Your task to perform on an android device: remove spam from my inbox in the gmail app Image 0: 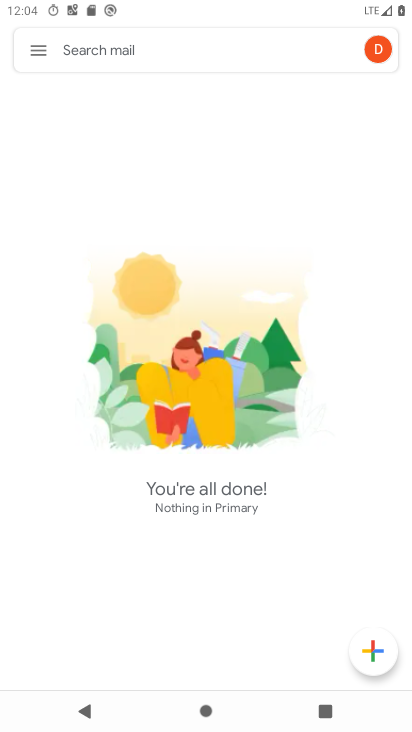
Step 0: press home button
Your task to perform on an android device: remove spam from my inbox in the gmail app Image 1: 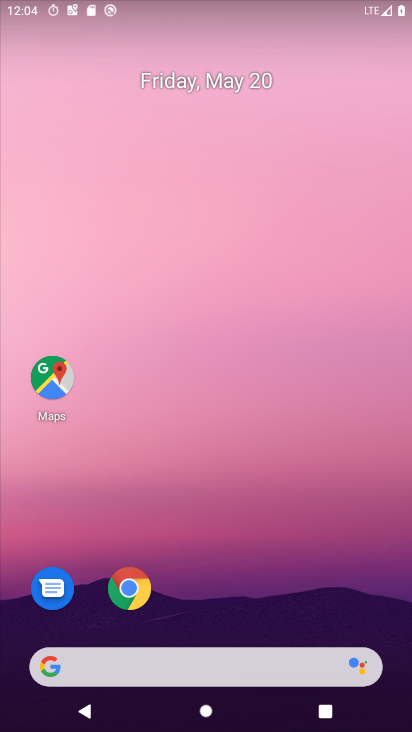
Step 1: drag from (177, 667) to (315, 96)
Your task to perform on an android device: remove spam from my inbox in the gmail app Image 2: 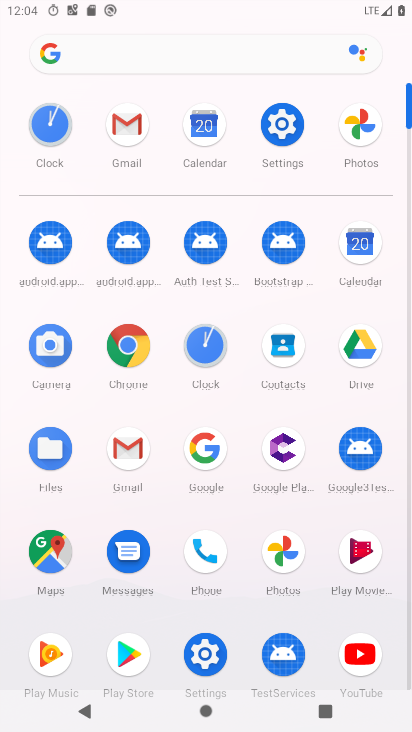
Step 2: click (125, 131)
Your task to perform on an android device: remove spam from my inbox in the gmail app Image 3: 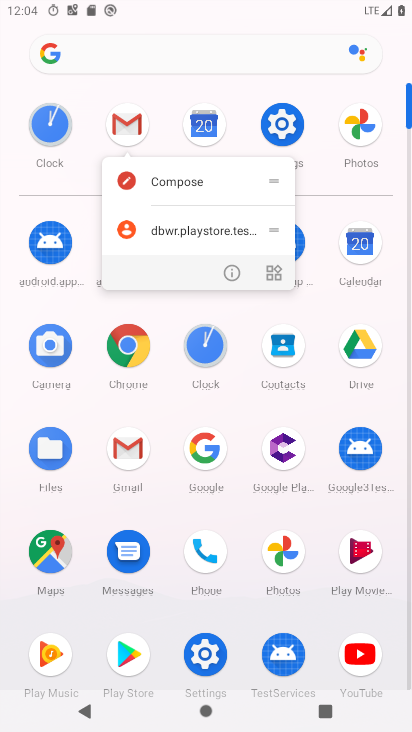
Step 3: click (134, 127)
Your task to perform on an android device: remove spam from my inbox in the gmail app Image 4: 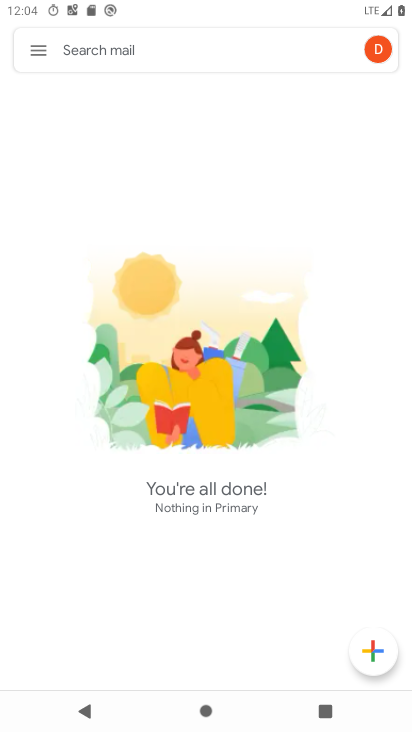
Step 4: click (41, 51)
Your task to perform on an android device: remove spam from my inbox in the gmail app Image 5: 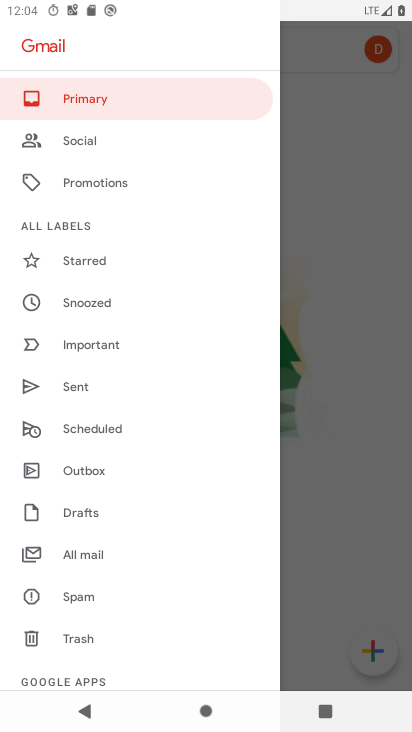
Step 5: click (86, 599)
Your task to perform on an android device: remove spam from my inbox in the gmail app Image 6: 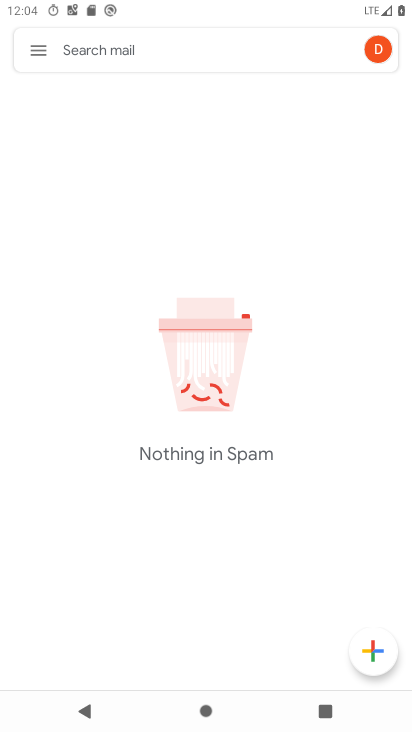
Step 6: task complete